Your task to perform on an android device: turn off priority inbox in the gmail app Image 0: 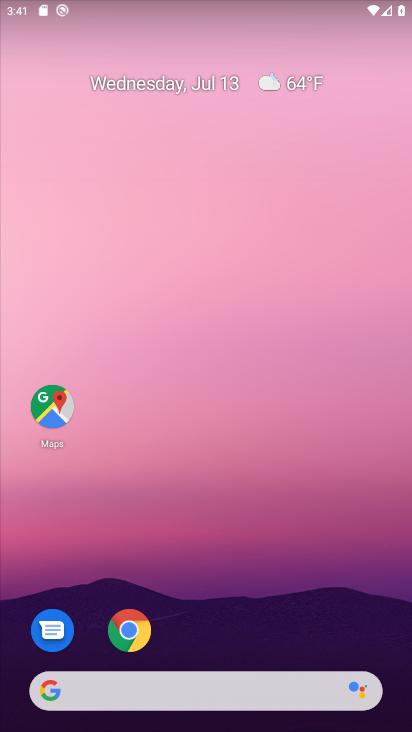
Step 0: drag from (212, 624) to (296, 20)
Your task to perform on an android device: turn off priority inbox in the gmail app Image 1: 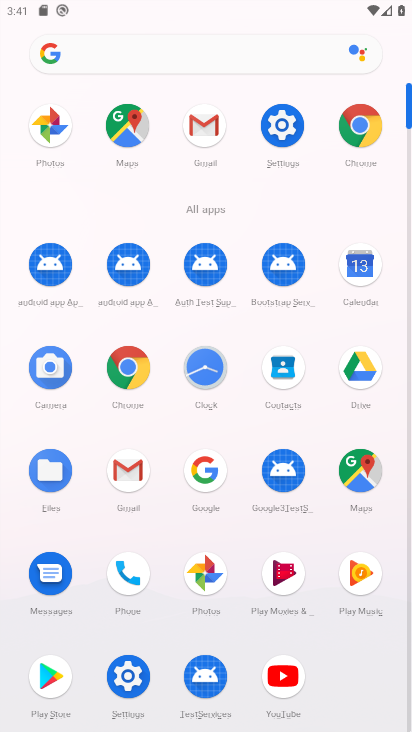
Step 1: click (137, 471)
Your task to perform on an android device: turn off priority inbox in the gmail app Image 2: 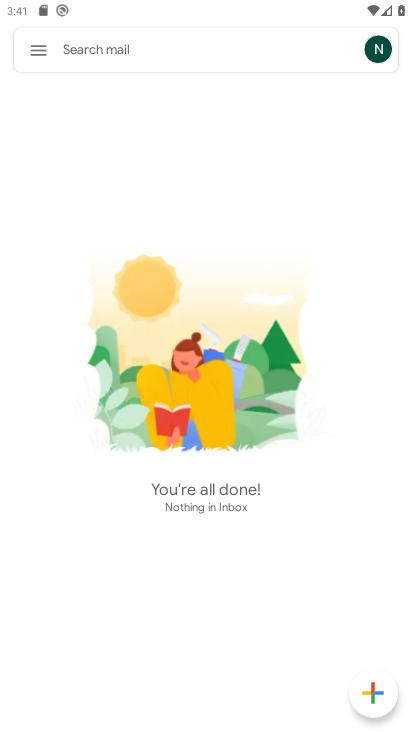
Step 2: click (42, 42)
Your task to perform on an android device: turn off priority inbox in the gmail app Image 3: 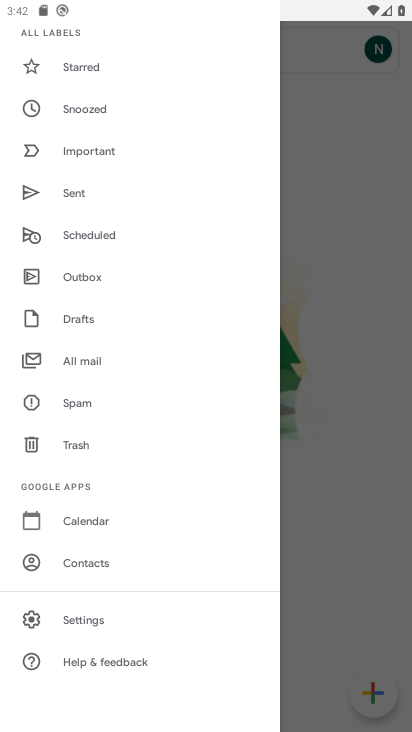
Step 3: click (131, 626)
Your task to perform on an android device: turn off priority inbox in the gmail app Image 4: 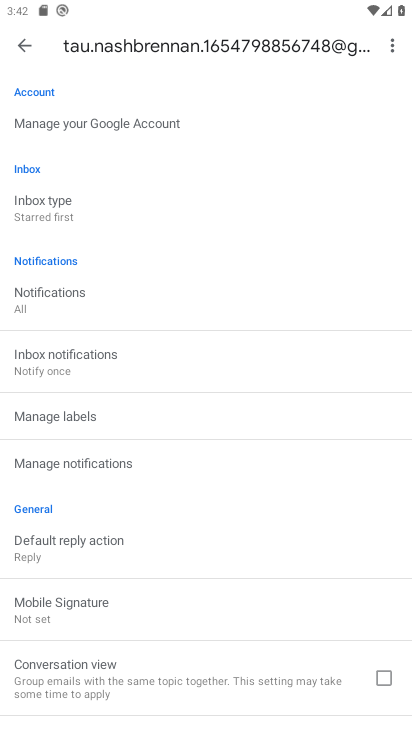
Step 4: drag from (85, 708) to (171, 265)
Your task to perform on an android device: turn off priority inbox in the gmail app Image 5: 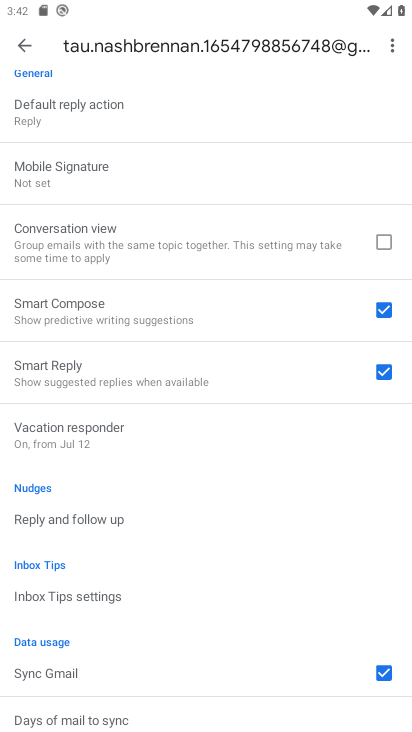
Step 5: drag from (137, 129) to (221, 716)
Your task to perform on an android device: turn off priority inbox in the gmail app Image 6: 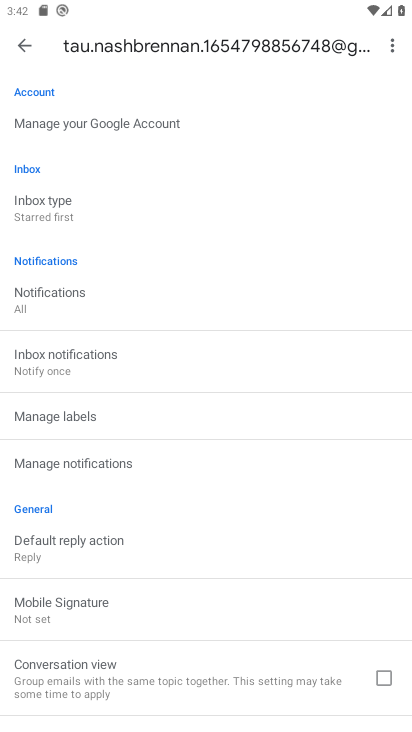
Step 6: drag from (115, 158) to (238, 653)
Your task to perform on an android device: turn off priority inbox in the gmail app Image 7: 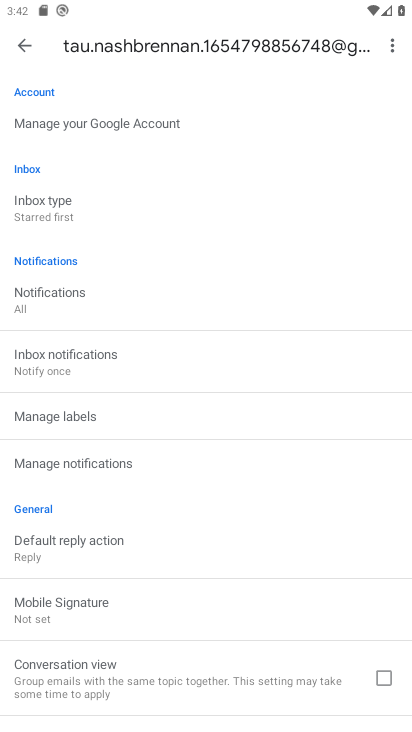
Step 7: click (32, 190)
Your task to perform on an android device: turn off priority inbox in the gmail app Image 8: 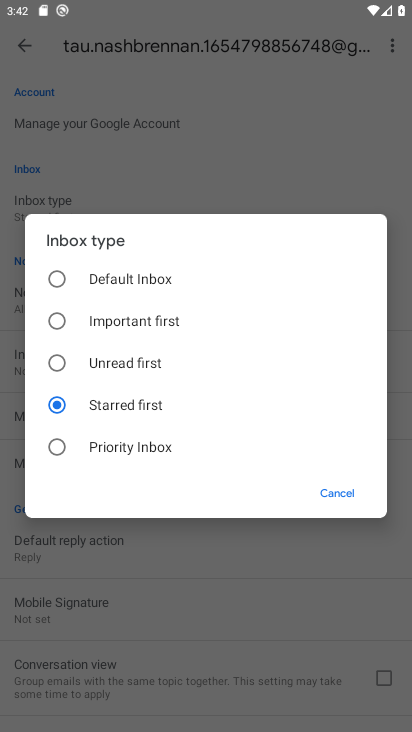
Step 8: click (126, 359)
Your task to perform on an android device: turn off priority inbox in the gmail app Image 9: 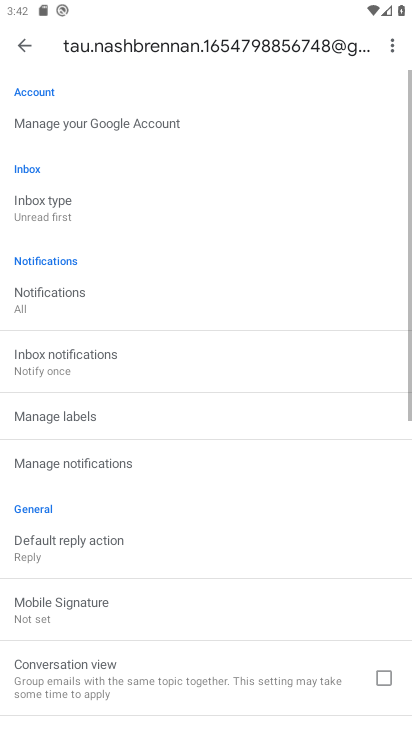
Step 9: task complete